Your task to perform on an android device: Open calendar and show me the third week of next month Image 0: 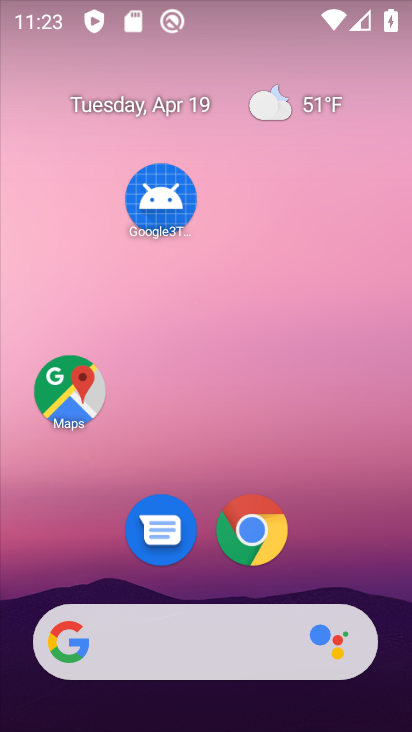
Step 0: drag from (299, 292) to (269, 70)
Your task to perform on an android device: Open calendar and show me the third week of next month Image 1: 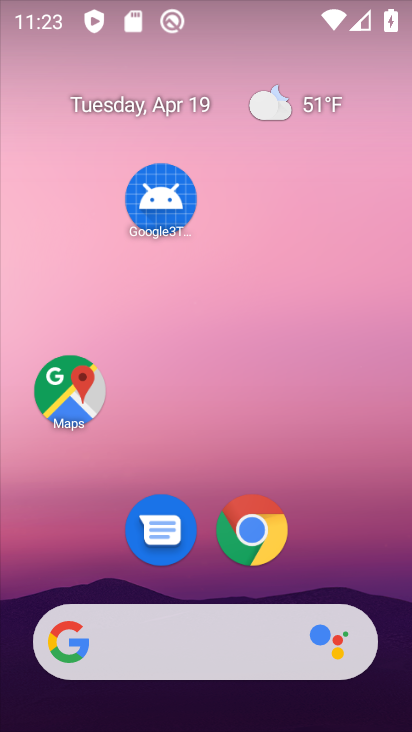
Step 1: drag from (345, 567) to (274, 122)
Your task to perform on an android device: Open calendar and show me the third week of next month Image 2: 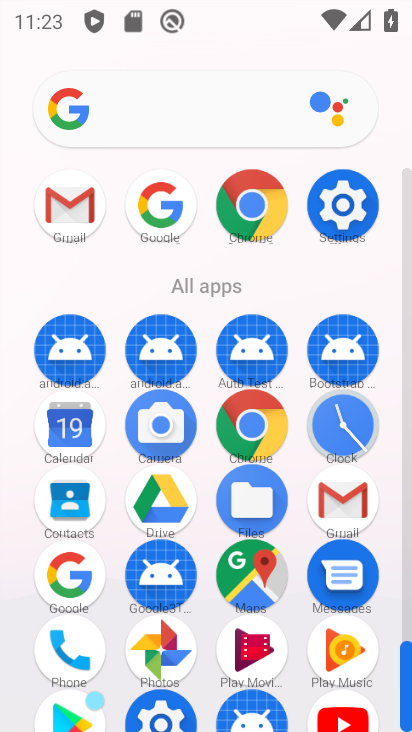
Step 2: click (76, 417)
Your task to perform on an android device: Open calendar and show me the third week of next month Image 3: 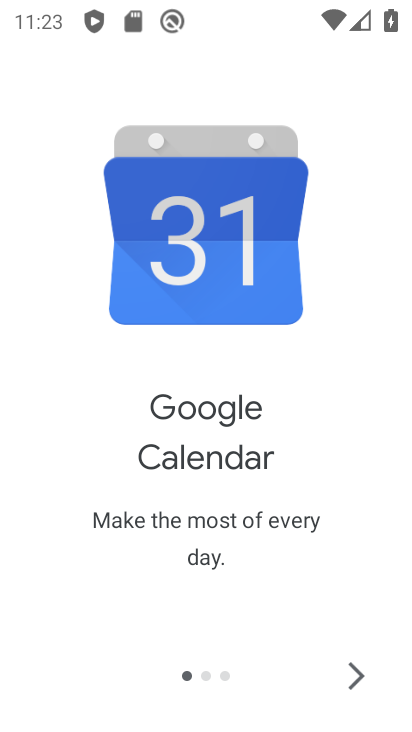
Step 3: click (363, 682)
Your task to perform on an android device: Open calendar and show me the third week of next month Image 4: 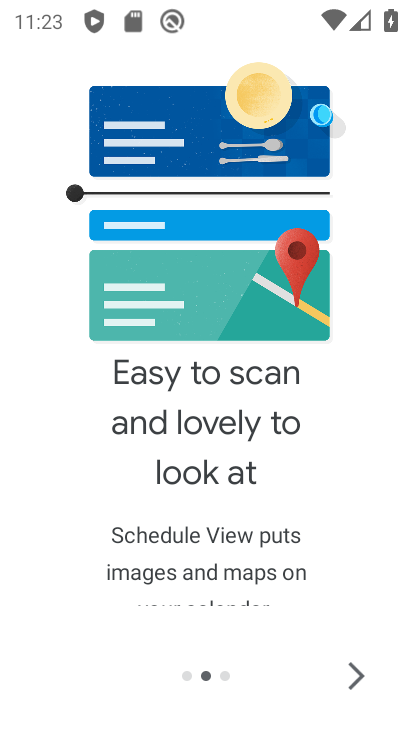
Step 4: click (367, 681)
Your task to perform on an android device: Open calendar and show me the third week of next month Image 5: 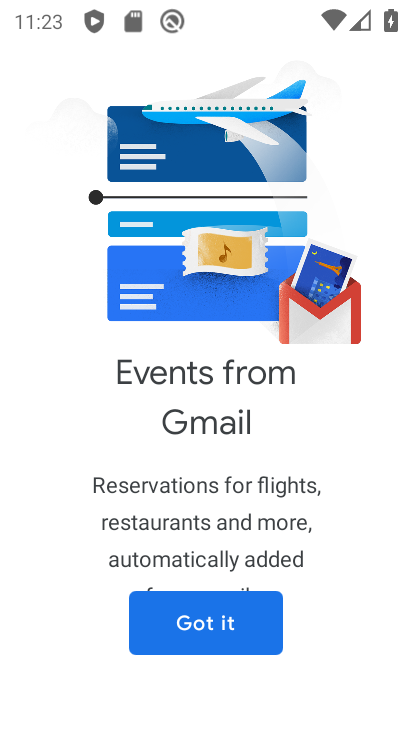
Step 5: click (248, 642)
Your task to perform on an android device: Open calendar and show me the third week of next month Image 6: 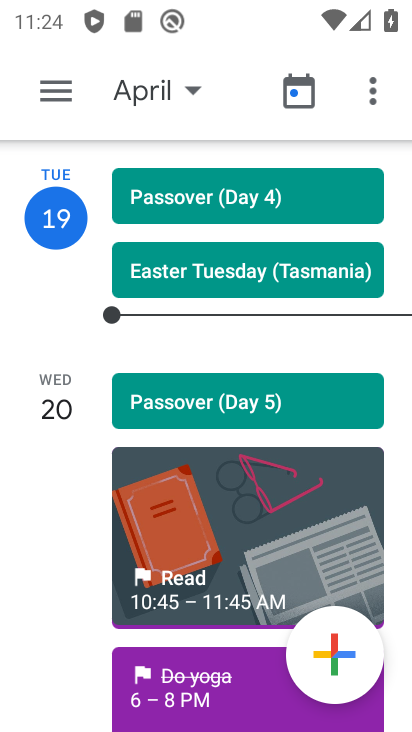
Step 6: click (178, 81)
Your task to perform on an android device: Open calendar and show me the third week of next month Image 7: 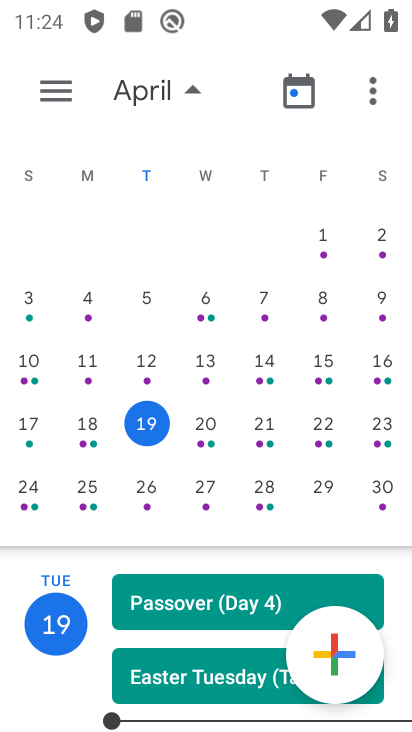
Step 7: drag from (370, 388) to (60, 375)
Your task to perform on an android device: Open calendar and show me the third week of next month Image 8: 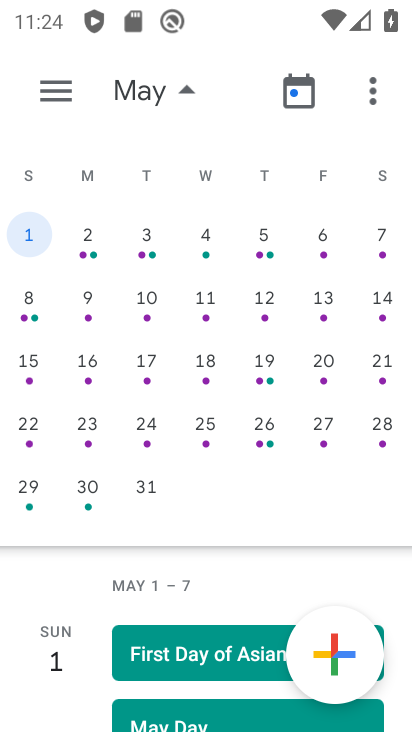
Step 8: click (146, 364)
Your task to perform on an android device: Open calendar and show me the third week of next month Image 9: 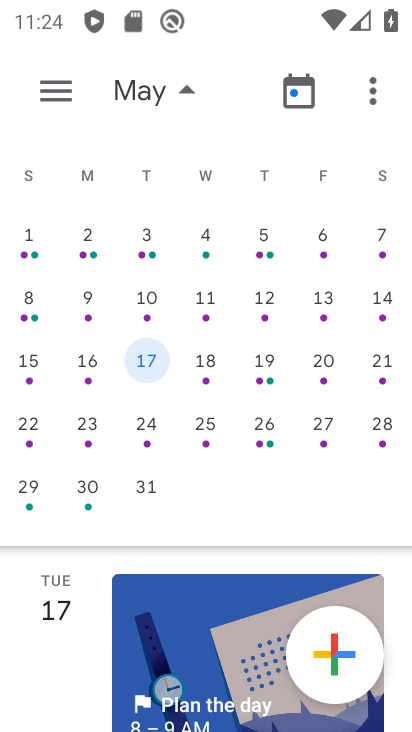
Step 9: task complete